Your task to perform on an android device: Open settings Image 0: 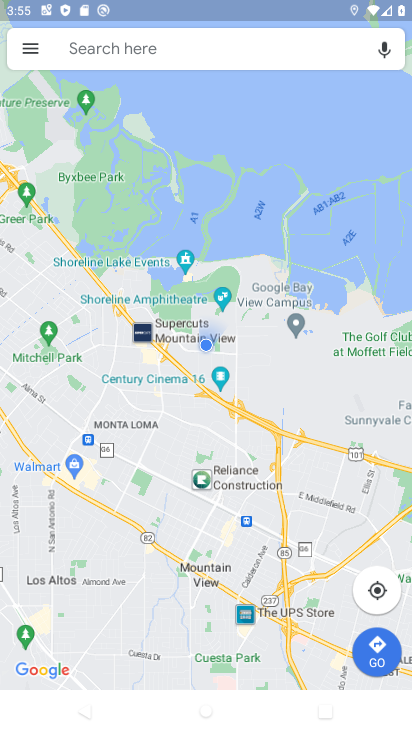
Step 0: press home button
Your task to perform on an android device: Open settings Image 1: 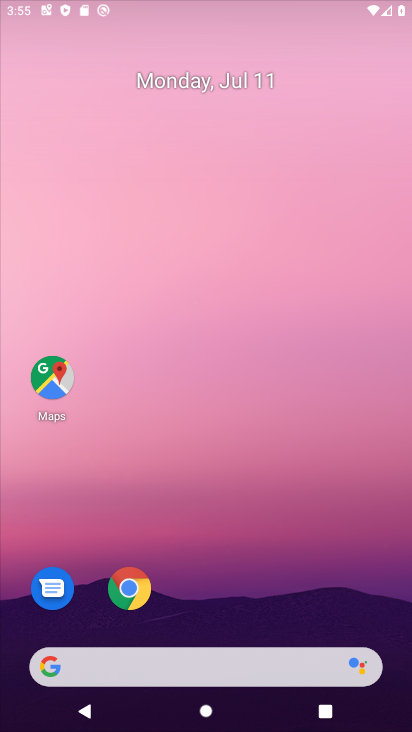
Step 1: drag from (280, 599) to (235, 19)
Your task to perform on an android device: Open settings Image 2: 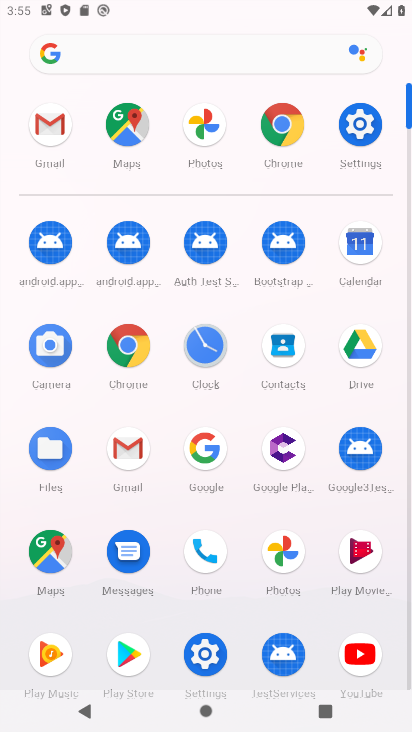
Step 2: click (370, 124)
Your task to perform on an android device: Open settings Image 3: 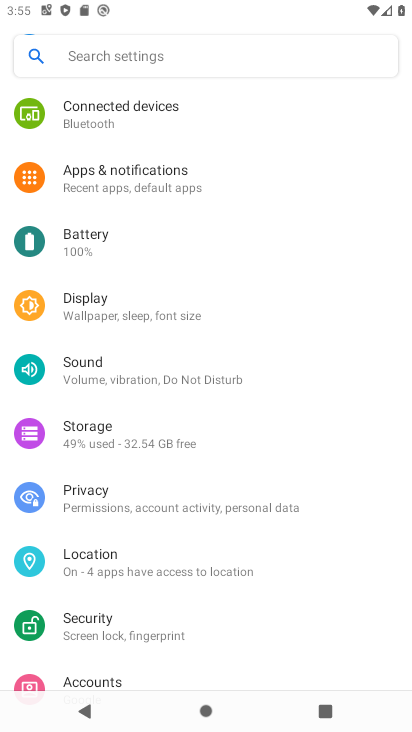
Step 3: task complete